Your task to perform on an android device: Go to calendar. Show me events next week Image 0: 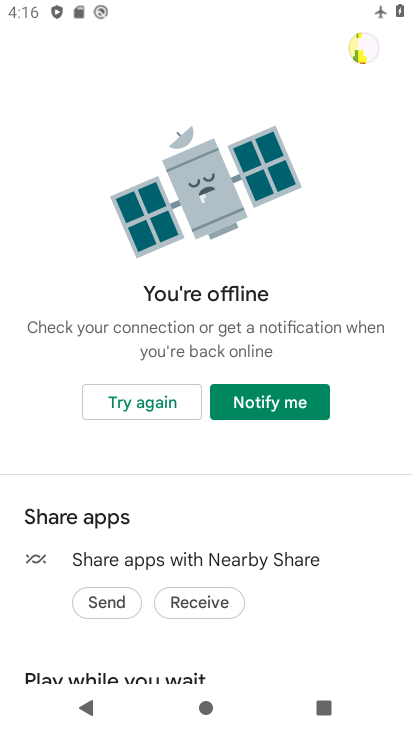
Step 0: press home button
Your task to perform on an android device: Go to calendar. Show me events next week Image 1: 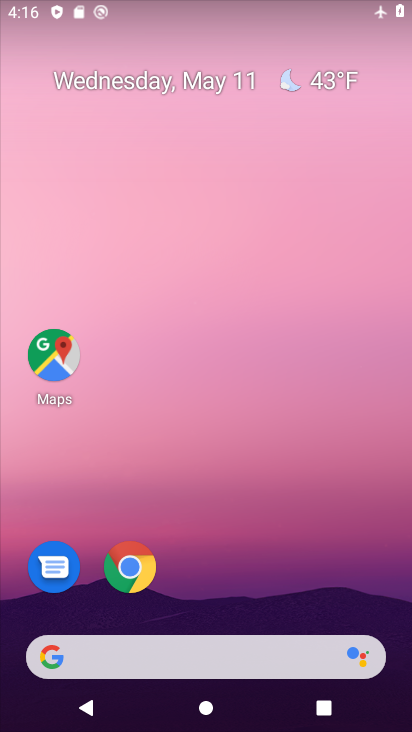
Step 1: drag from (261, 598) to (322, 68)
Your task to perform on an android device: Go to calendar. Show me events next week Image 2: 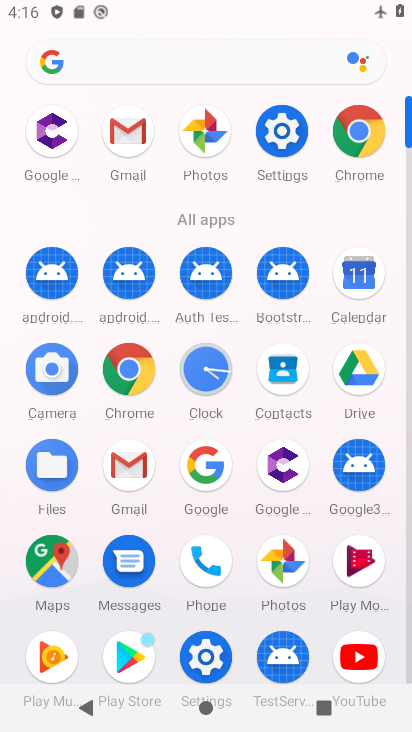
Step 2: click (365, 266)
Your task to perform on an android device: Go to calendar. Show me events next week Image 3: 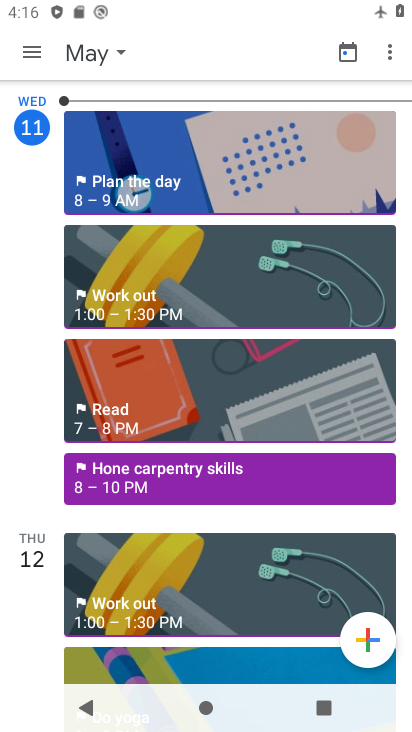
Step 3: click (36, 49)
Your task to perform on an android device: Go to calendar. Show me events next week Image 4: 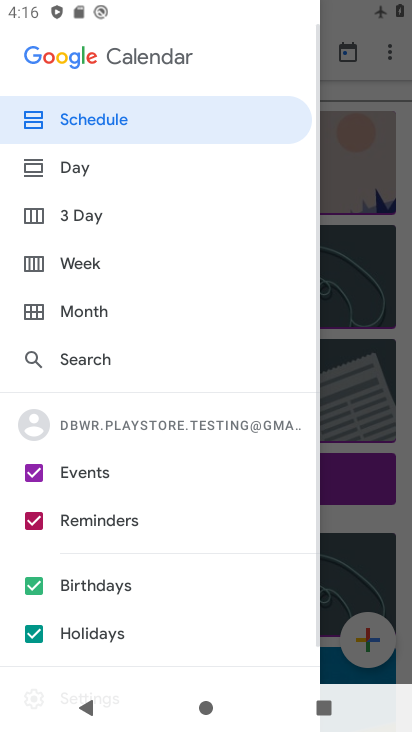
Step 4: click (116, 262)
Your task to perform on an android device: Go to calendar. Show me events next week Image 5: 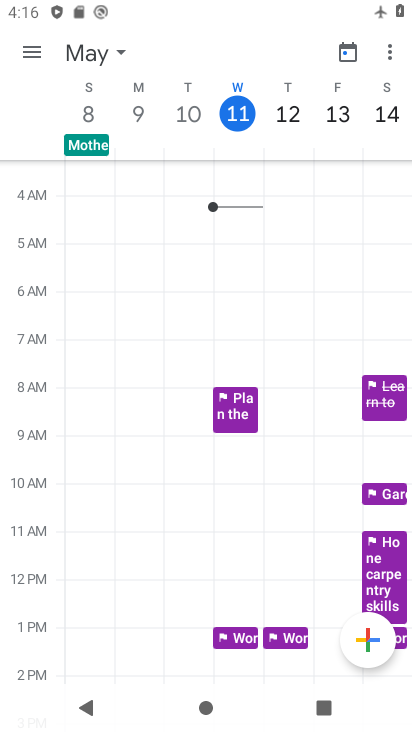
Step 5: task complete